Your task to perform on an android device: uninstall "Duolingo: language lessons" Image 0: 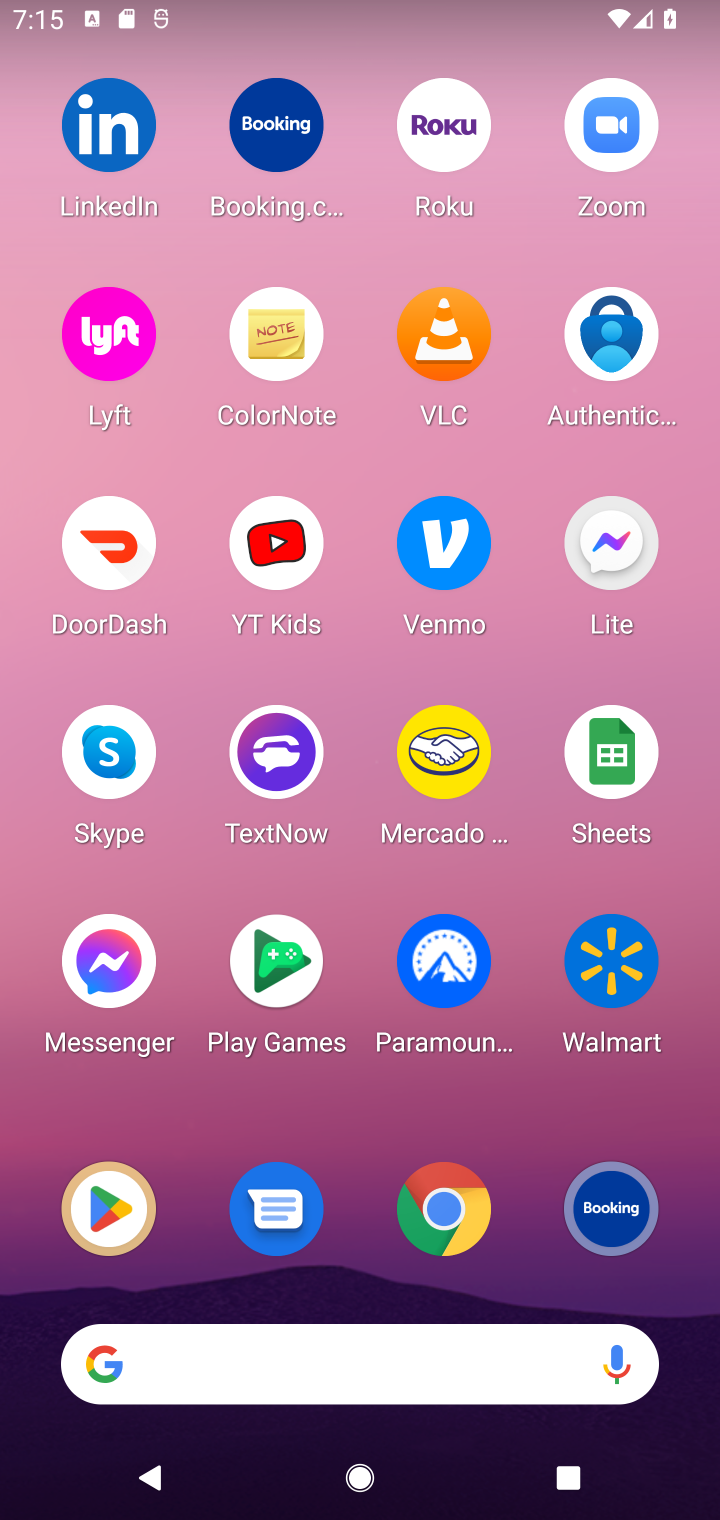
Step 0: click (113, 1206)
Your task to perform on an android device: uninstall "Duolingo: language lessons" Image 1: 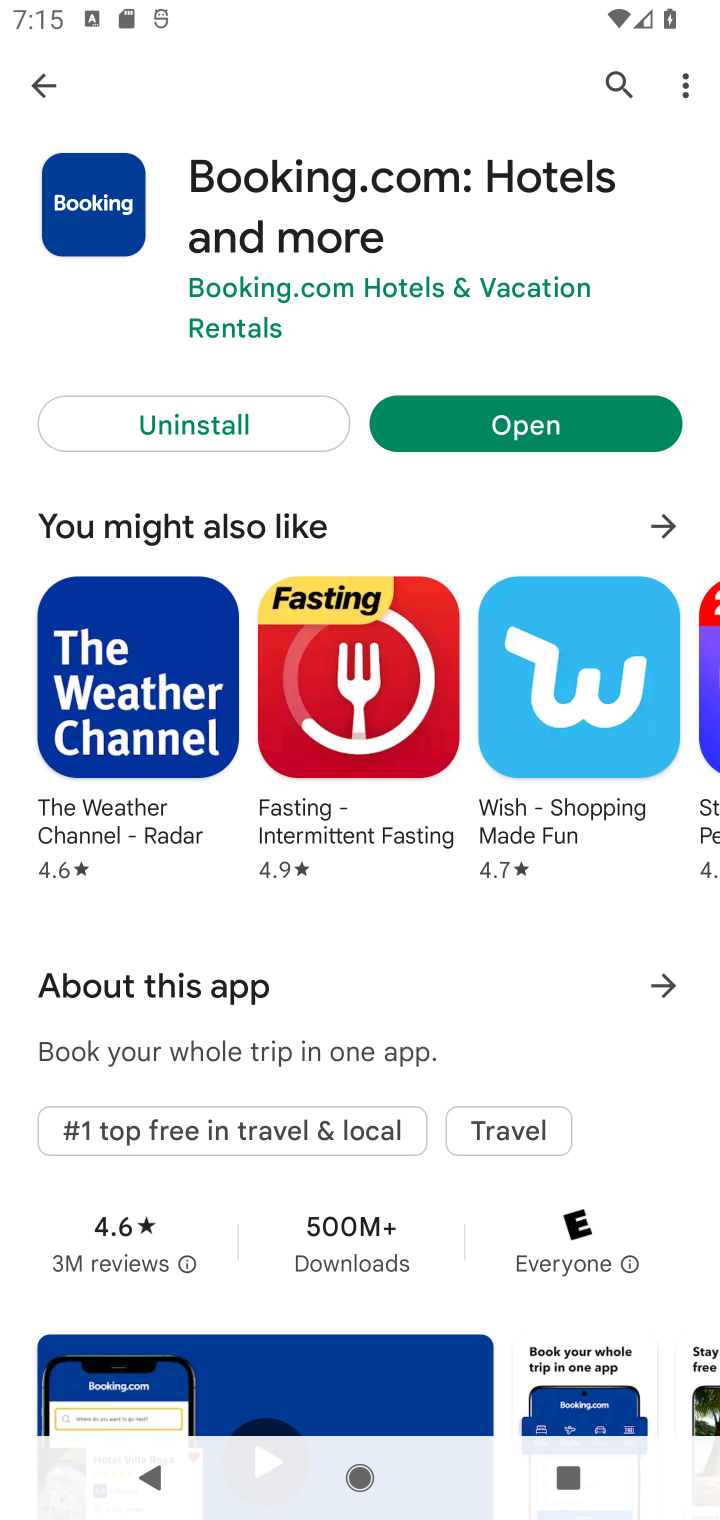
Step 1: click (614, 88)
Your task to perform on an android device: uninstall "Duolingo: language lessons" Image 2: 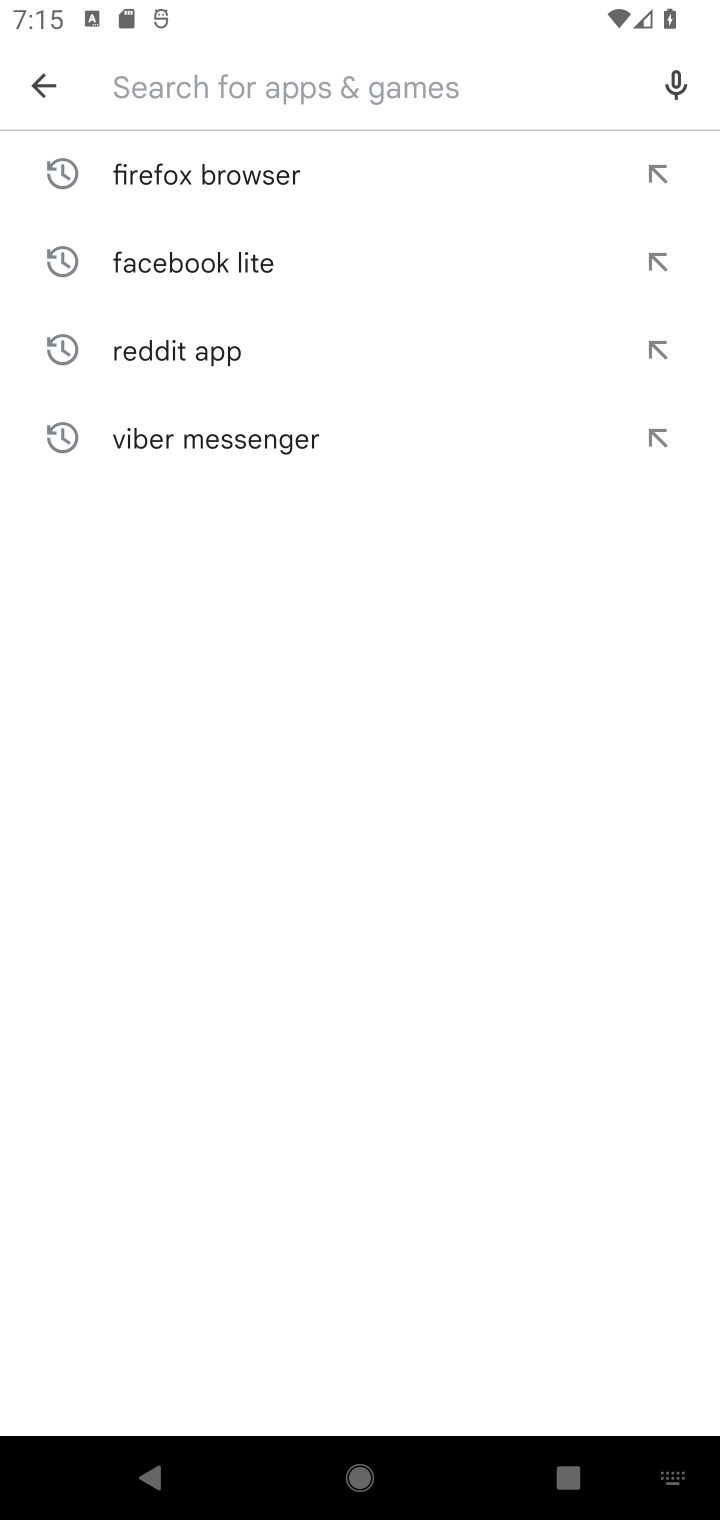
Step 2: click (385, 116)
Your task to perform on an android device: uninstall "Duolingo: language lessons" Image 3: 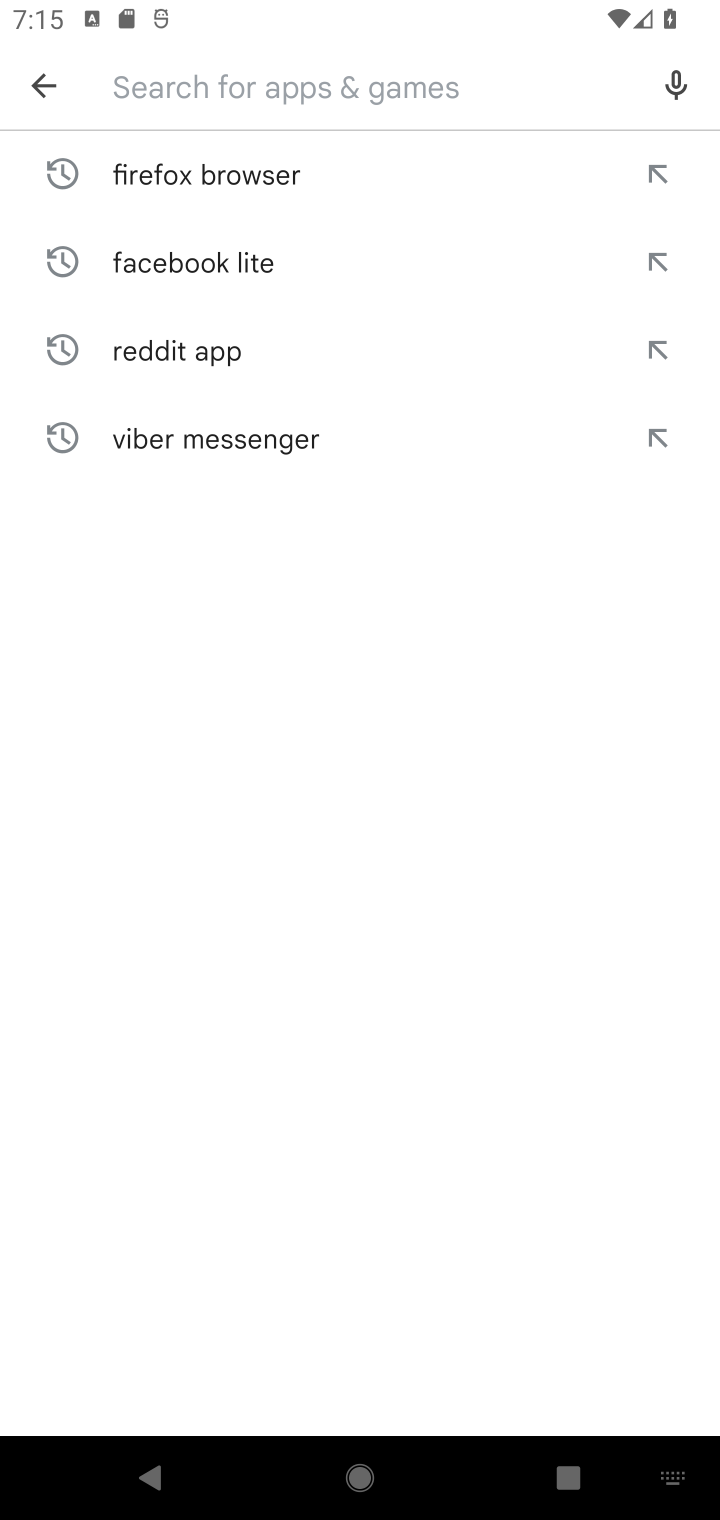
Step 3: type "Duolingo: language lessons"
Your task to perform on an android device: uninstall "Duolingo: language lessons" Image 4: 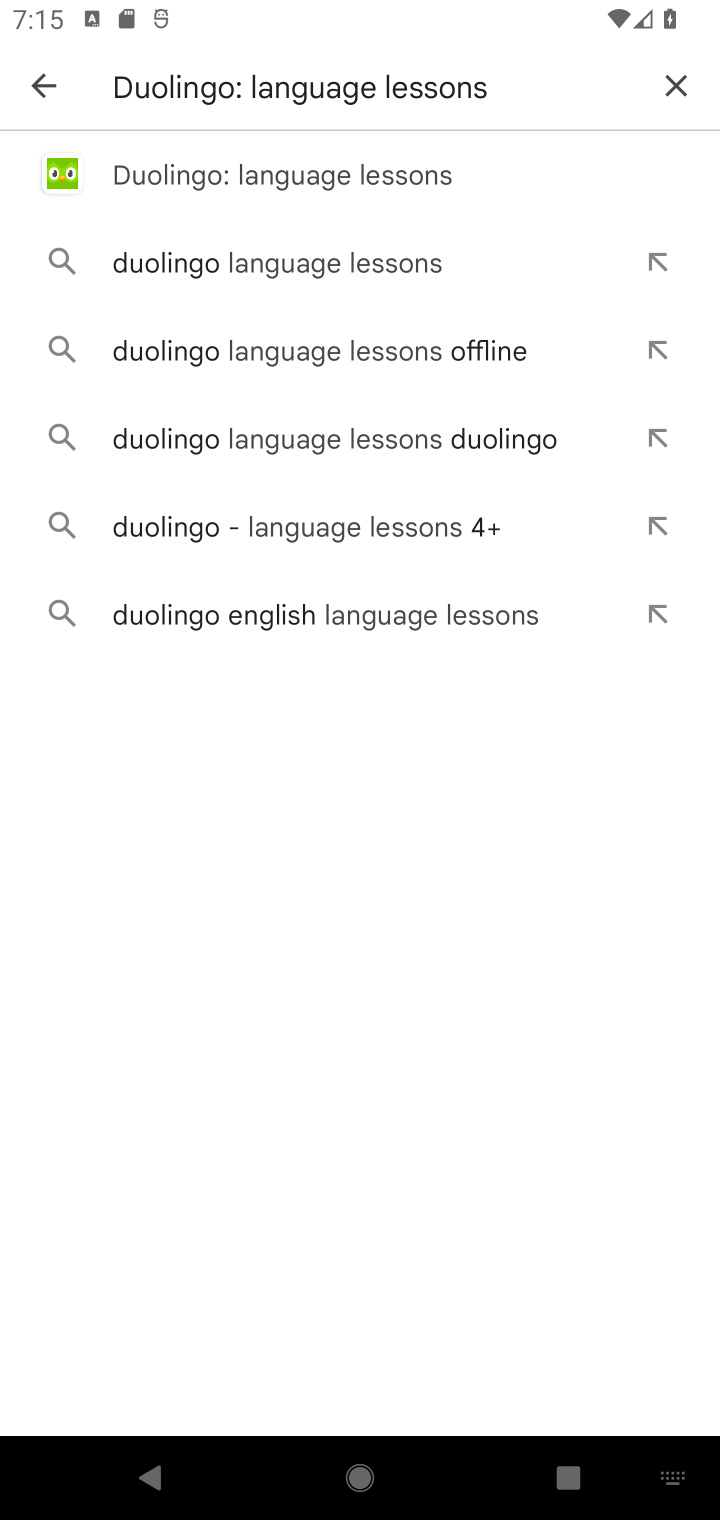
Step 4: click (317, 179)
Your task to perform on an android device: uninstall "Duolingo: language lessons" Image 5: 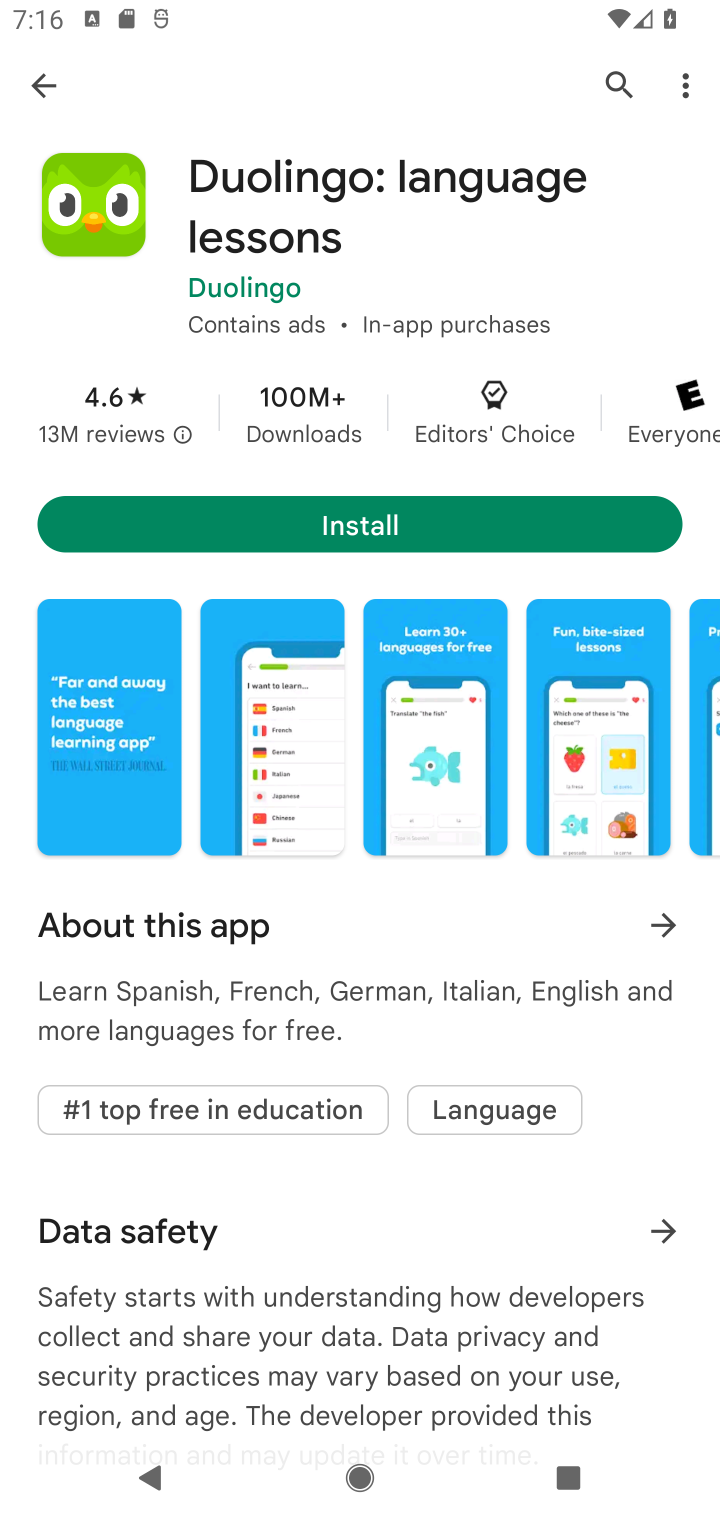
Step 5: task complete